Your task to perform on an android device: Turn on the flashlight Image 0: 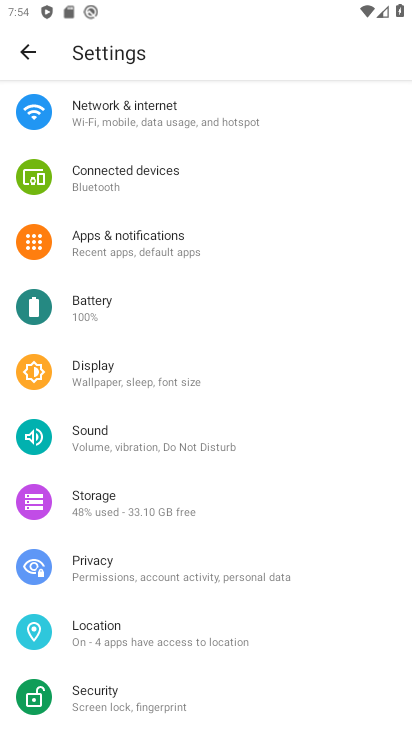
Step 0: press home button
Your task to perform on an android device: Turn on the flashlight Image 1: 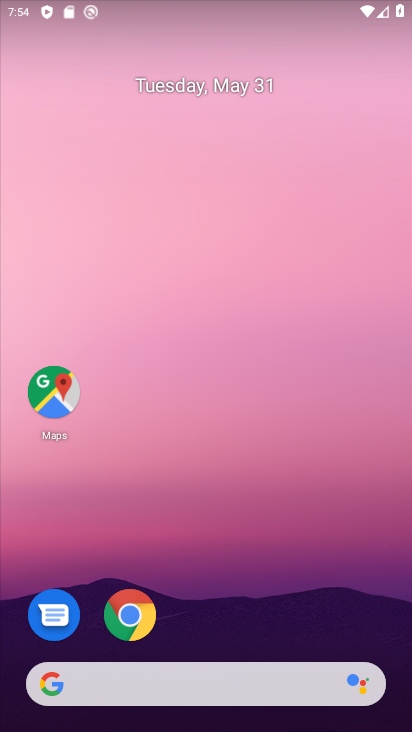
Step 1: task complete